Your task to perform on an android device: Open sound settings Image 0: 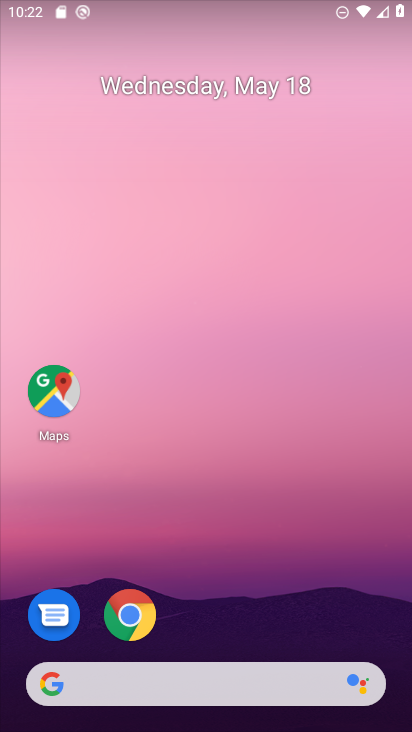
Step 0: drag from (215, 636) to (191, 67)
Your task to perform on an android device: Open sound settings Image 1: 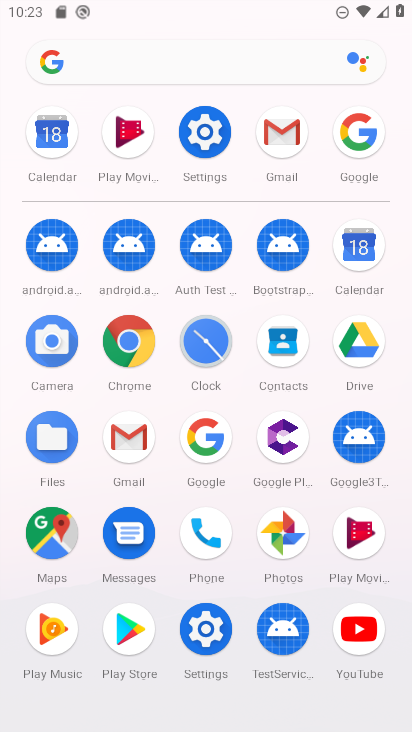
Step 1: click (207, 120)
Your task to perform on an android device: Open sound settings Image 2: 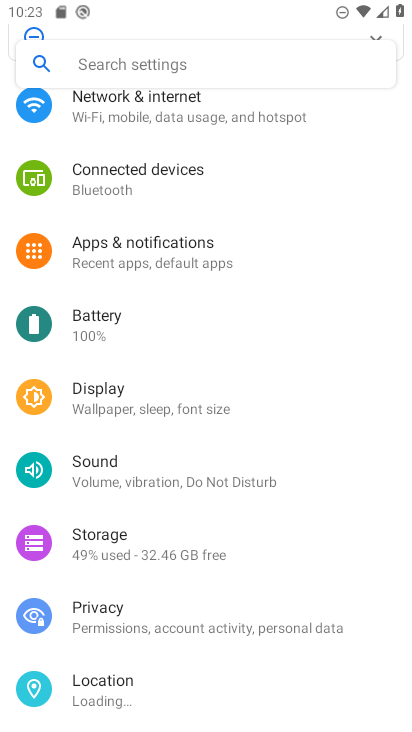
Step 2: click (121, 450)
Your task to perform on an android device: Open sound settings Image 3: 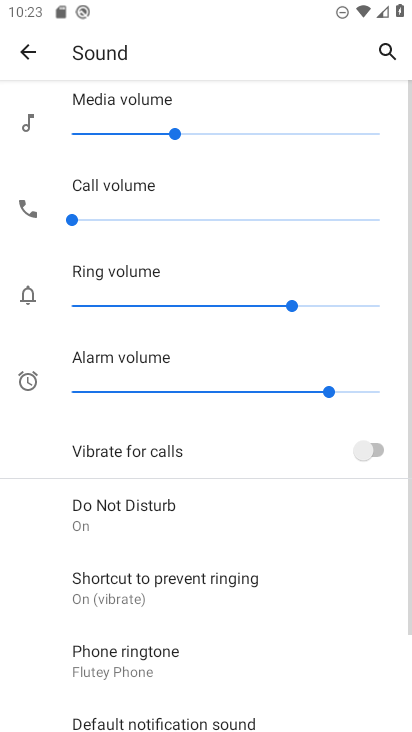
Step 3: task complete